Your task to perform on an android device: check android version Image 0: 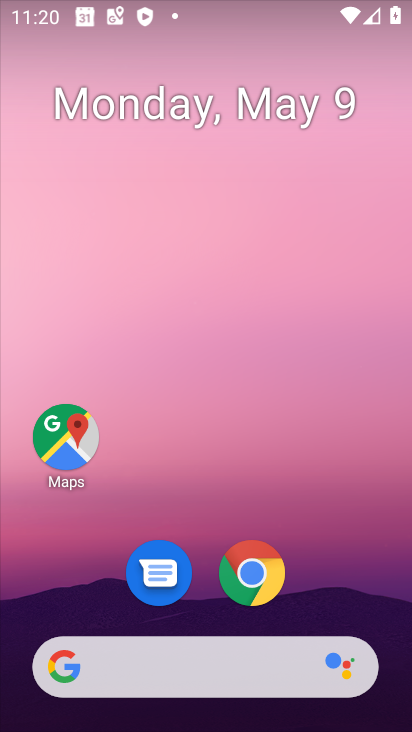
Step 0: drag from (164, 599) to (277, 233)
Your task to perform on an android device: check android version Image 1: 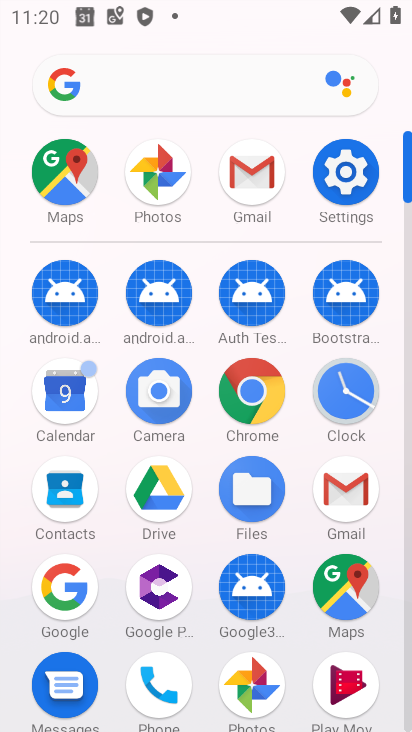
Step 1: drag from (83, 658) to (139, 263)
Your task to perform on an android device: check android version Image 2: 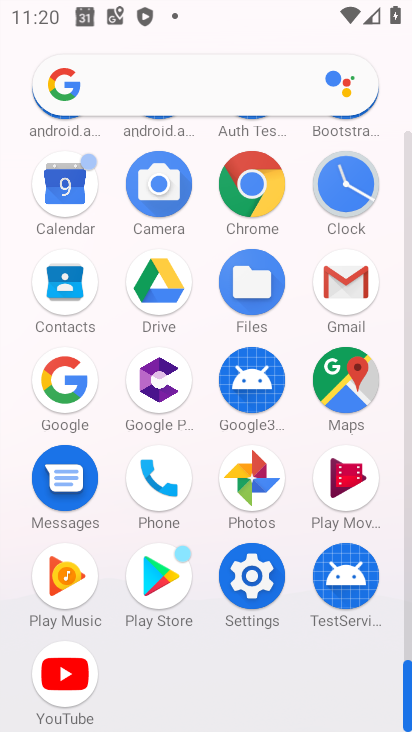
Step 2: click (253, 582)
Your task to perform on an android device: check android version Image 3: 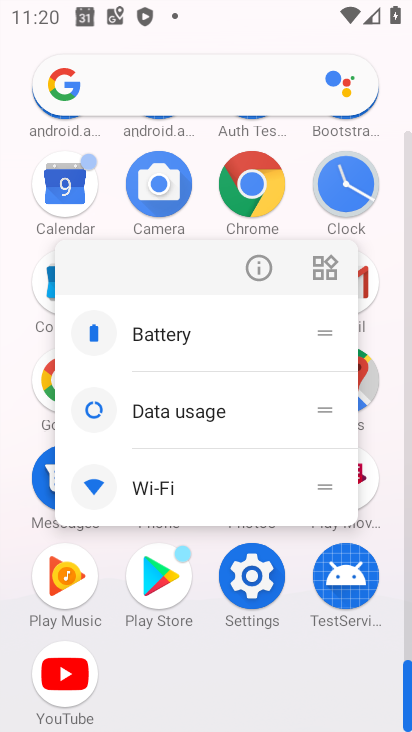
Step 3: click (264, 253)
Your task to perform on an android device: check android version Image 4: 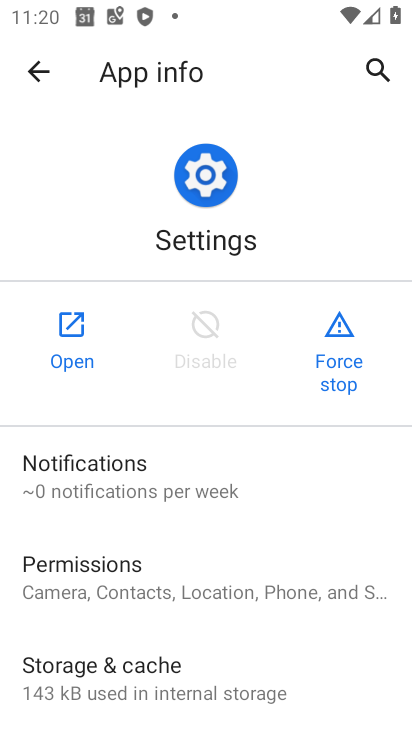
Step 4: click (71, 353)
Your task to perform on an android device: check android version Image 5: 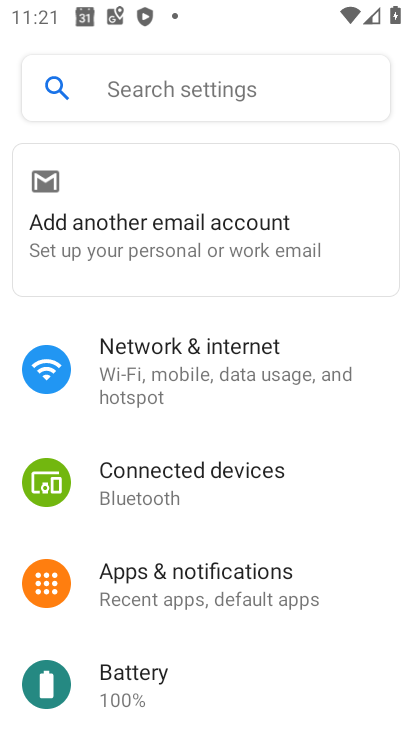
Step 5: drag from (219, 513) to (340, 250)
Your task to perform on an android device: check android version Image 6: 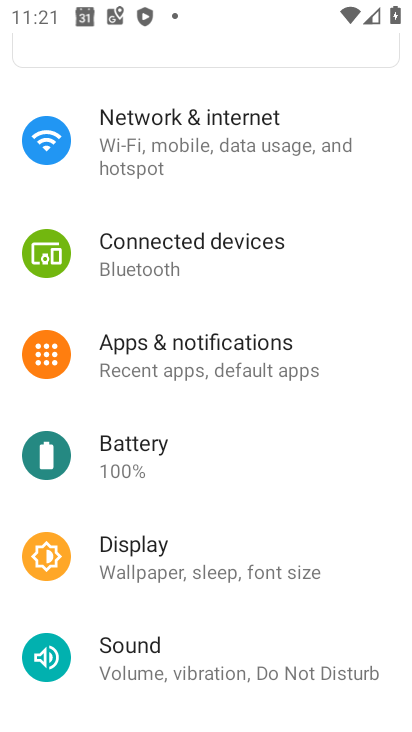
Step 6: drag from (284, 659) to (346, 191)
Your task to perform on an android device: check android version Image 7: 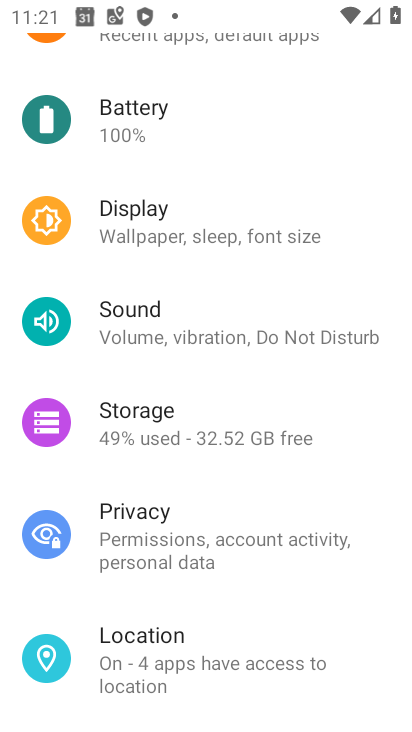
Step 7: drag from (158, 599) to (222, 115)
Your task to perform on an android device: check android version Image 8: 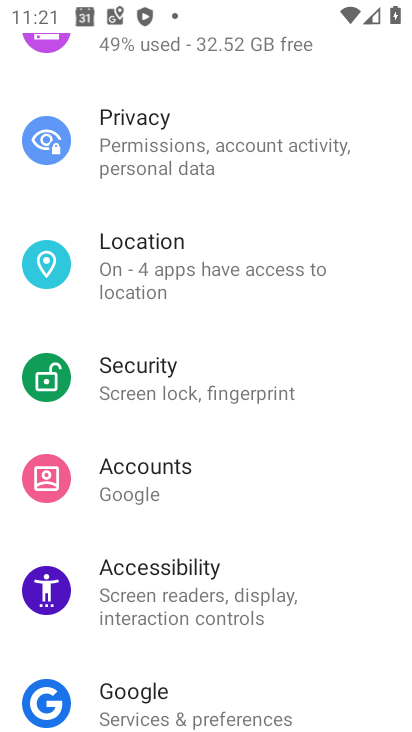
Step 8: drag from (176, 678) to (288, 73)
Your task to perform on an android device: check android version Image 9: 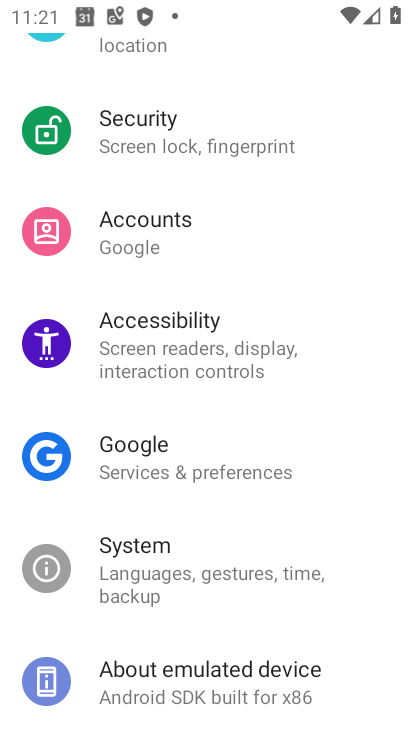
Step 9: click (172, 682)
Your task to perform on an android device: check android version Image 10: 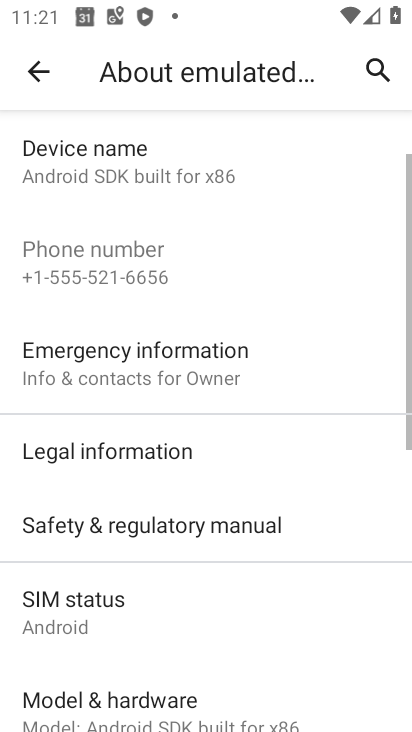
Step 10: drag from (215, 599) to (295, 131)
Your task to perform on an android device: check android version Image 11: 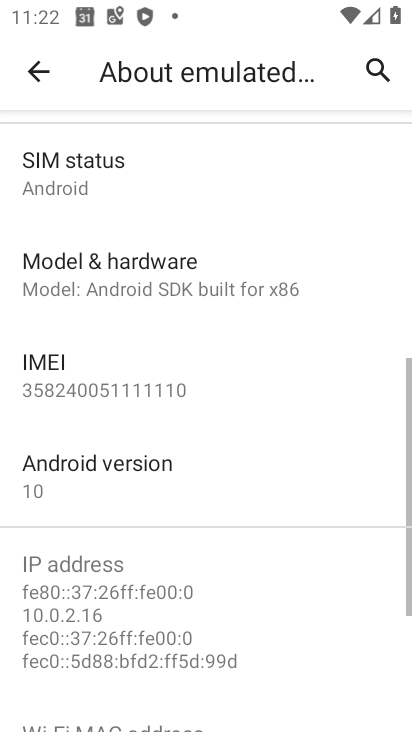
Step 11: click (162, 491)
Your task to perform on an android device: check android version Image 12: 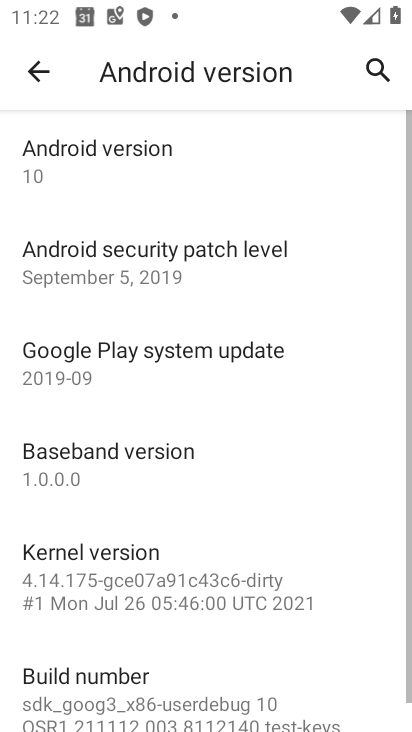
Step 12: task complete